Your task to perform on an android device: Go to sound settings Image 0: 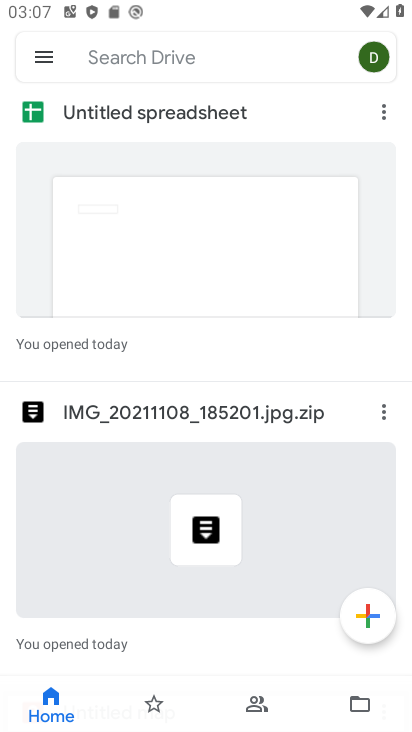
Step 0: press home button
Your task to perform on an android device: Go to sound settings Image 1: 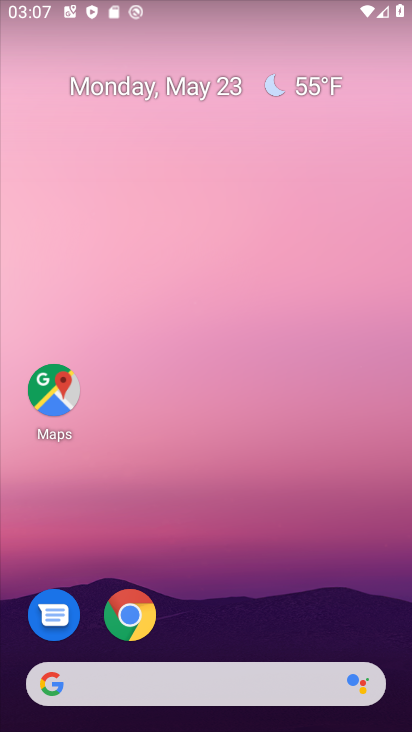
Step 1: drag from (380, 608) to (374, 171)
Your task to perform on an android device: Go to sound settings Image 2: 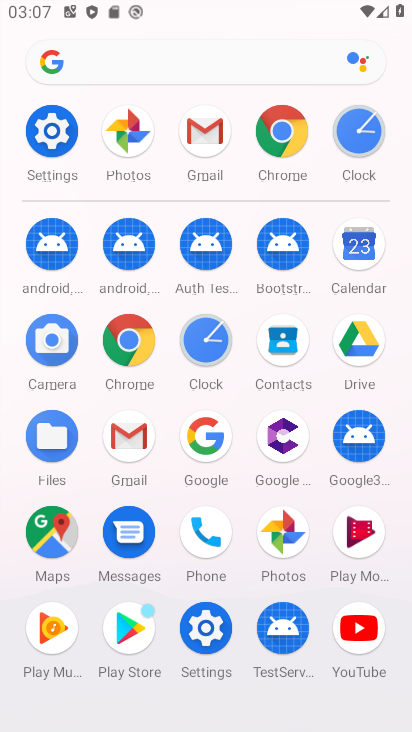
Step 2: click (197, 639)
Your task to perform on an android device: Go to sound settings Image 3: 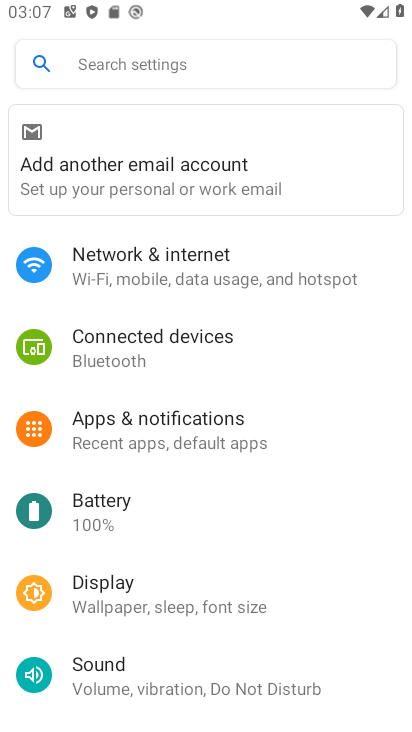
Step 3: drag from (360, 605) to (371, 485)
Your task to perform on an android device: Go to sound settings Image 4: 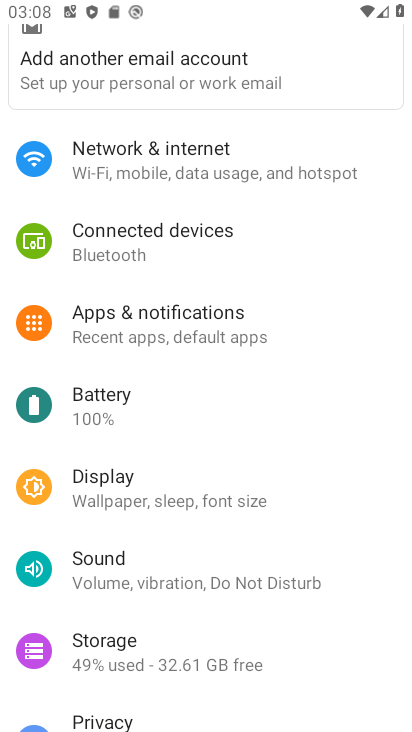
Step 4: drag from (370, 633) to (369, 518)
Your task to perform on an android device: Go to sound settings Image 5: 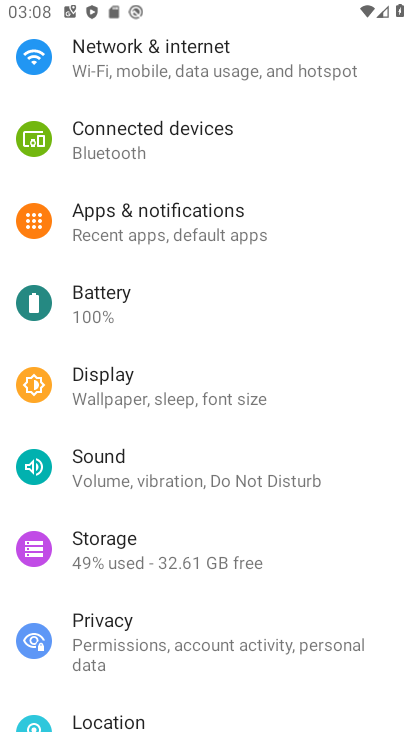
Step 5: drag from (358, 670) to (359, 523)
Your task to perform on an android device: Go to sound settings Image 6: 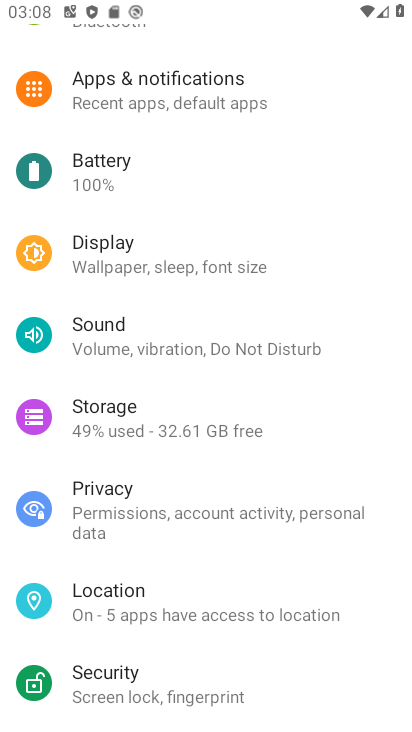
Step 6: drag from (351, 671) to (351, 585)
Your task to perform on an android device: Go to sound settings Image 7: 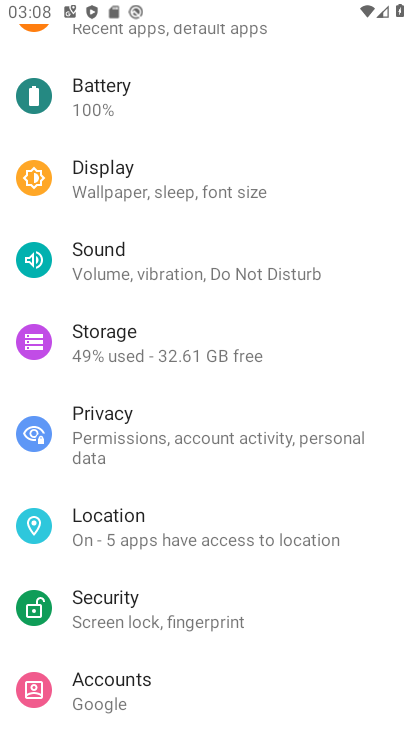
Step 7: drag from (348, 681) to (353, 567)
Your task to perform on an android device: Go to sound settings Image 8: 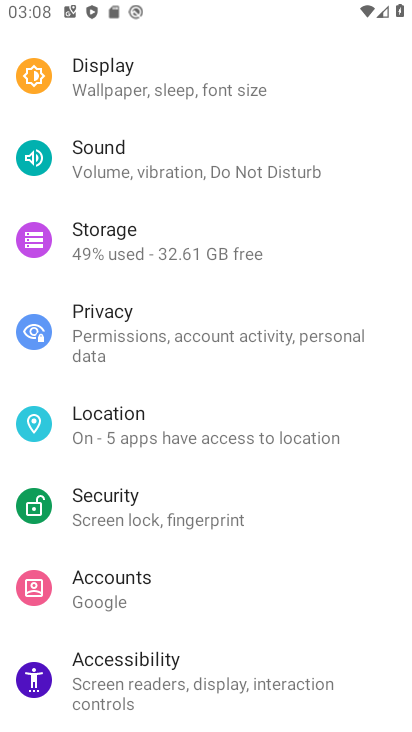
Step 8: drag from (374, 700) to (368, 572)
Your task to perform on an android device: Go to sound settings Image 9: 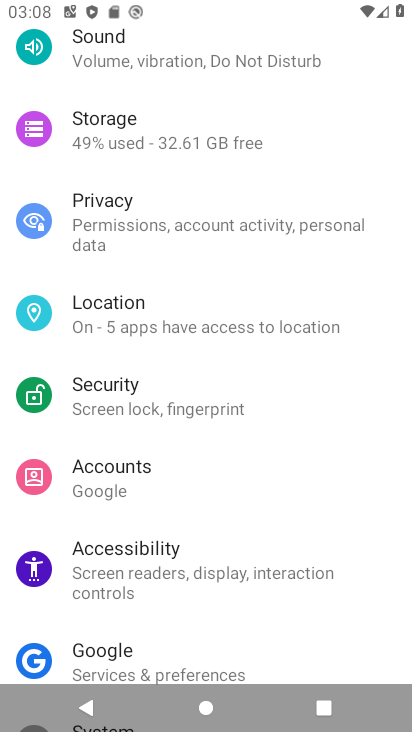
Step 9: drag from (351, 636) to (362, 496)
Your task to perform on an android device: Go to sound settings Image 10: 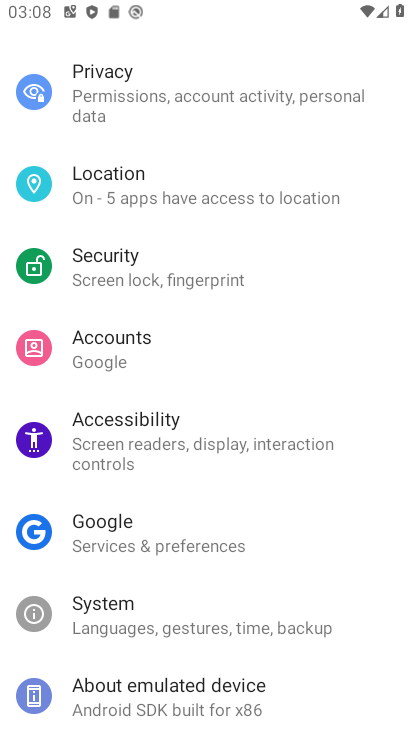
Step 10: drag from (349, 662) to (355, 549)
Your task to perform on an android device: Go to sound settings Image 11: 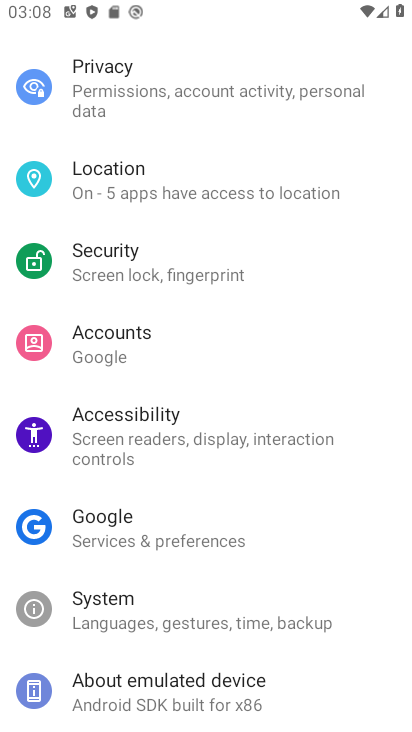
Step 11: drag from (359, 330) to (363, 453)
Your task to perform on an android device: Go to sound settings Image 12: 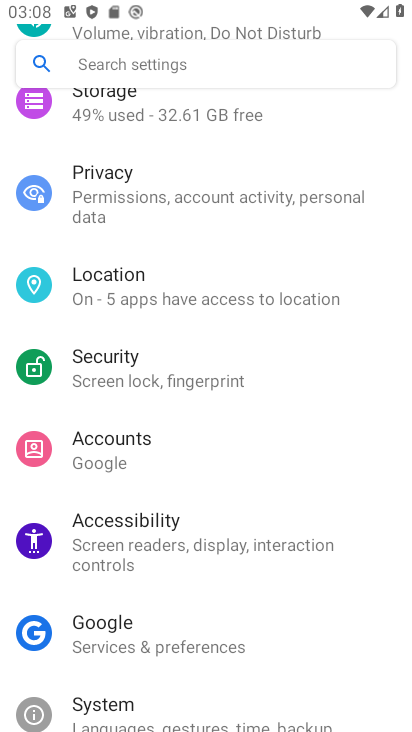
Step 12: drag from (371, 296) to (352, 436)
Your task to perform on an android device: Go to sound settings Image 13: 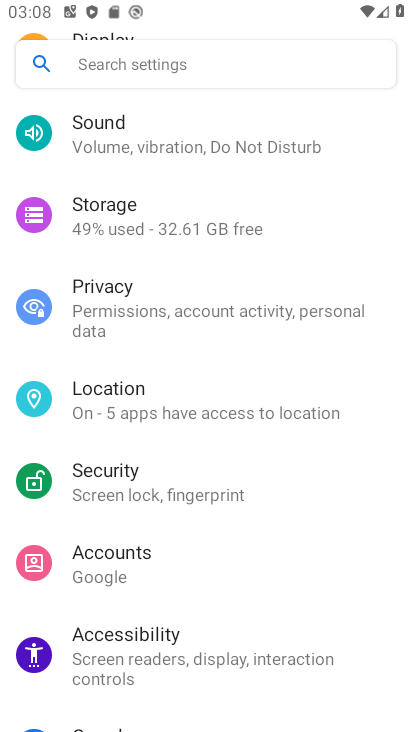
Step 13: drag from (368, 266) to (344, 397)
Your task to perform on an android device: Go to sound settings Image 14: 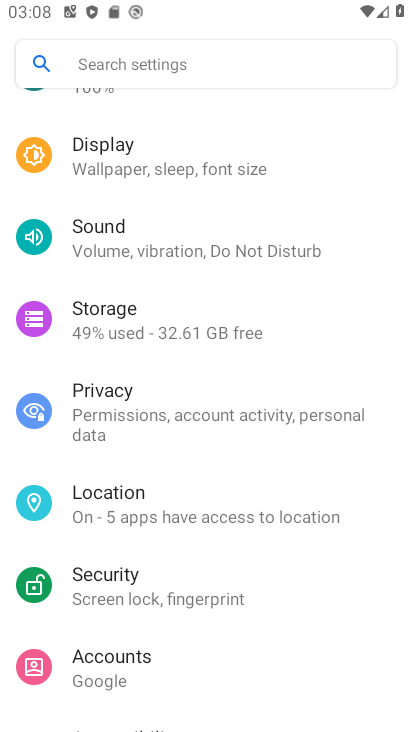
Step 14: drag from (345, 251) to (344, 387)
Your task to perform on an android device: Go to sound settings Image 15: 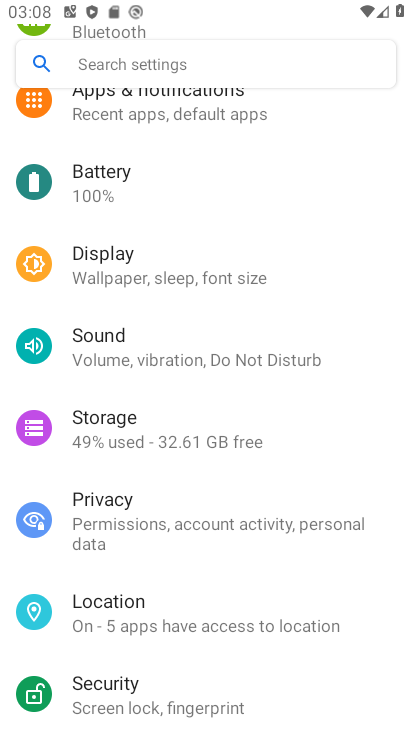
Step 15: drag from (355, 226) to (352, 397)
Your task to perform on an android device: Go to sound settings Image 16: 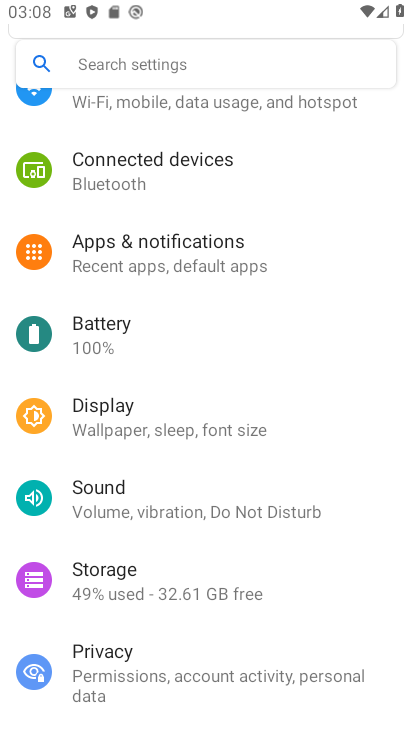
Step 16: drag from (316, 202) to (322, 360)
Your task to perform on an android device: Go to sound settings Image 17: 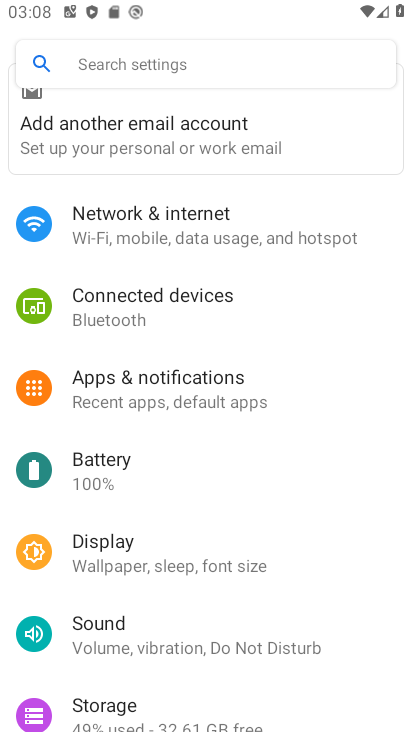
Step 17: drag from (319, 313) to (316, 444)
Your task to perform on an android device: Go to sound settings Image 18: 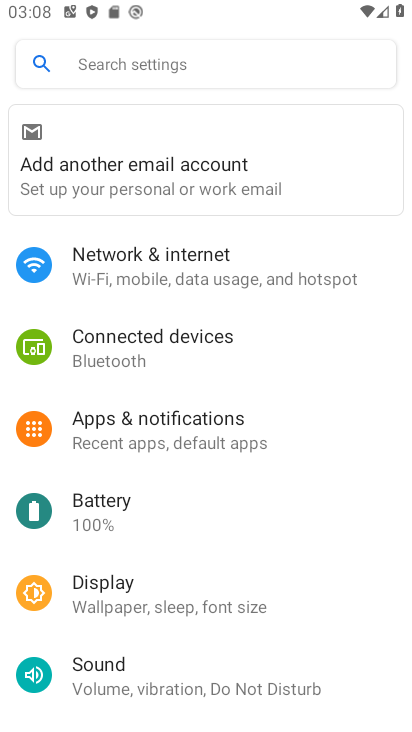
Step 18: drag from (329, 344) to (330, 495)
Your task to perform on an android device: Go to sound settings Image 19: 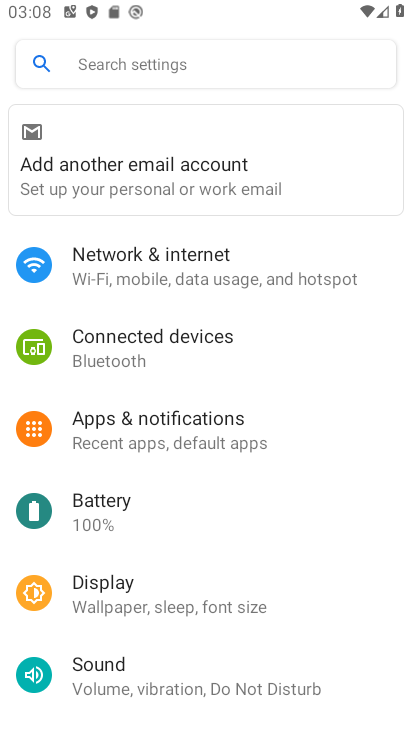
Step 19: drag from (335, 561) to (344, 448)
Your task to perform on an android device: Go to sound settings Image 20: 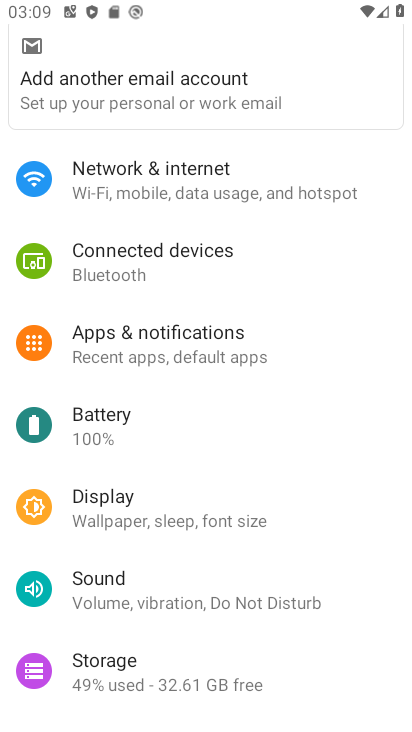
Step 20: click (245, 598)
Your task to perform on an android device: Go to sound settings Image 21: 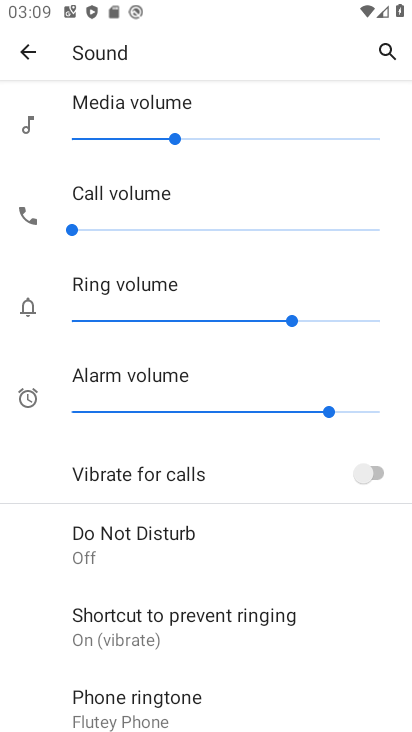
Step 21: task complete